Your task to perform on an android device: Open battery settings Image 0: 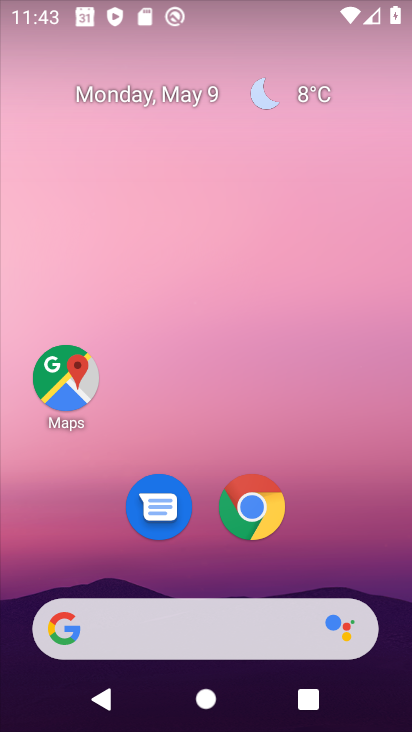
Step 0: drag from (319, 505) to (263, 60)
Your task to perform on an android device: Open battery settings Image 1: 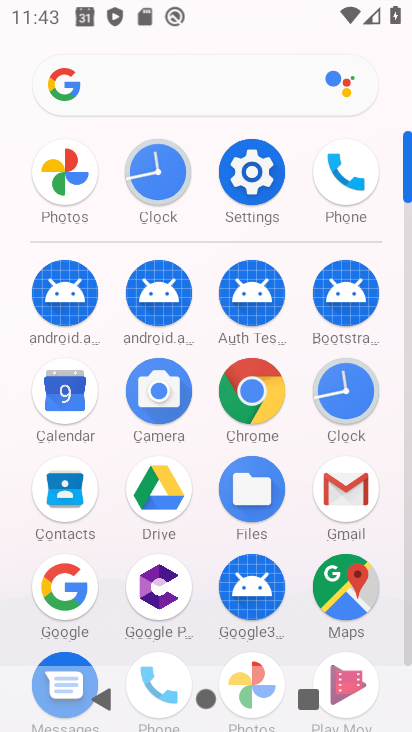
Step 1: click (260, 171)
Your task to perform on an android device: Open battery settings Image 2: 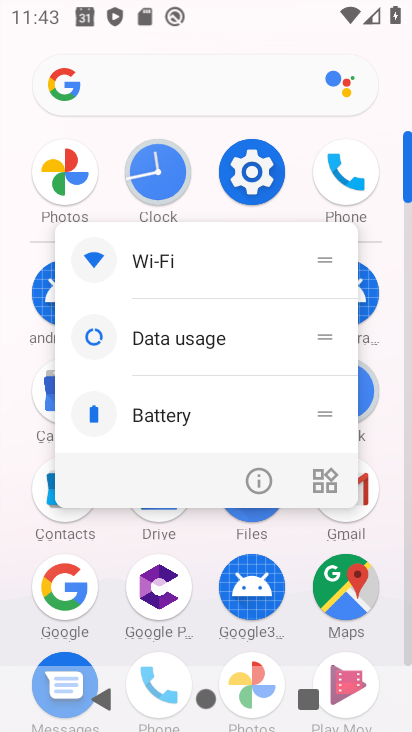
Step 2: click (259, 169)
Your task to perform on an android device: Open battery settings Image 3: 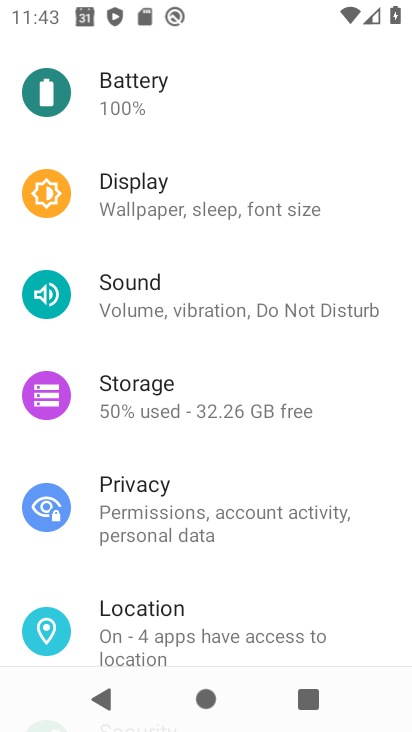
Step 3: click (170, 106)
Your task to perform on an android device: Open battery settings Image 4: 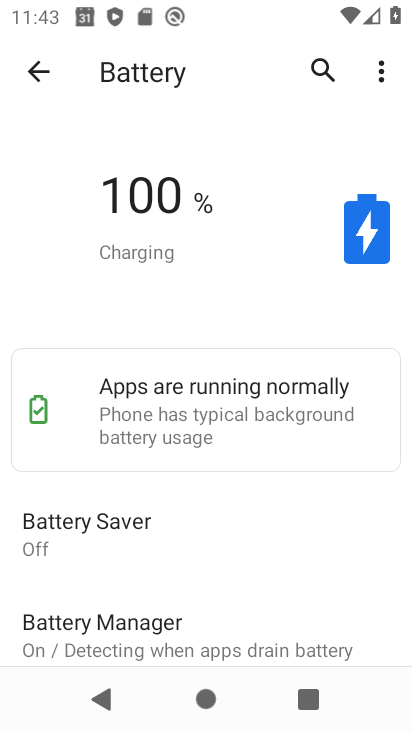
Step 4: task complete